Your task to perform on an android device: turn on translation in the chrome app Image 0: 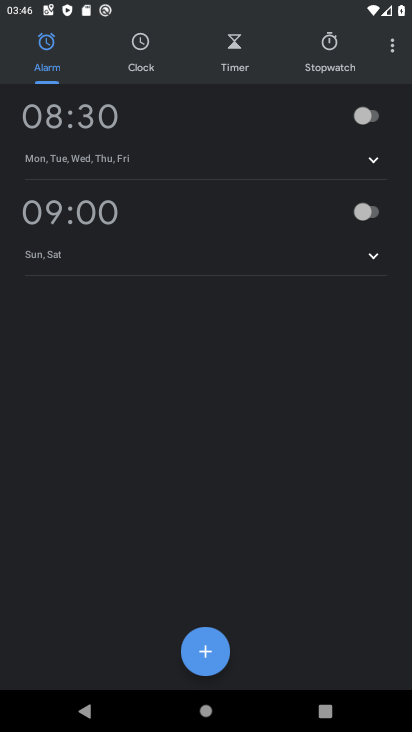
Step 0: press home button
Your task to perform on an android device: turn on translation in the chrome app Image 1: 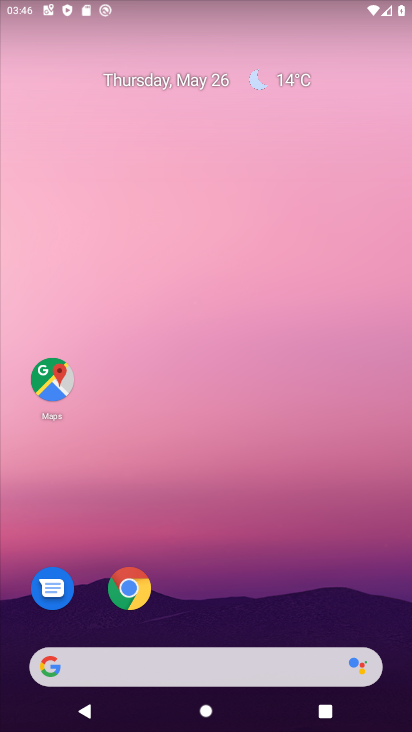
Step 1: drag from (320, 566) to (335, 227)
Your task to perform on an android device: turn on translation in the chrome app Image 2: 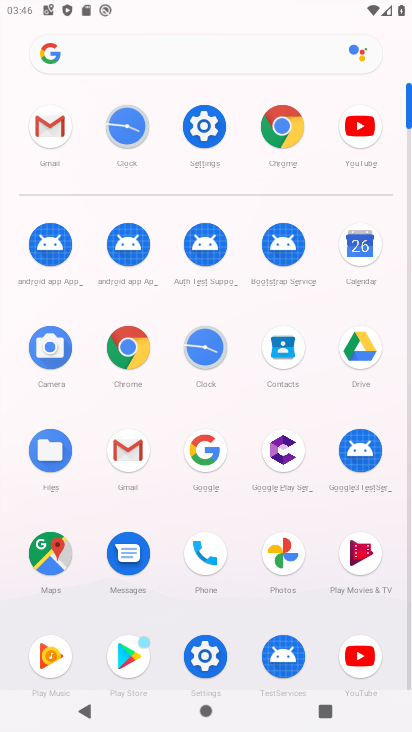
Step 2: click (284, 145)
Your task to perform on an android device: turn on translation in the chrome app Image 3: 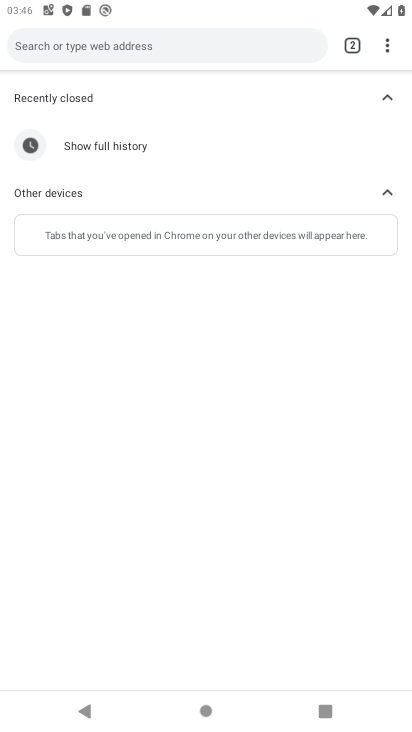
Step 3: click (380, 39)
Your task to perform on an android device: turn on translation in the chrome app Image 4: 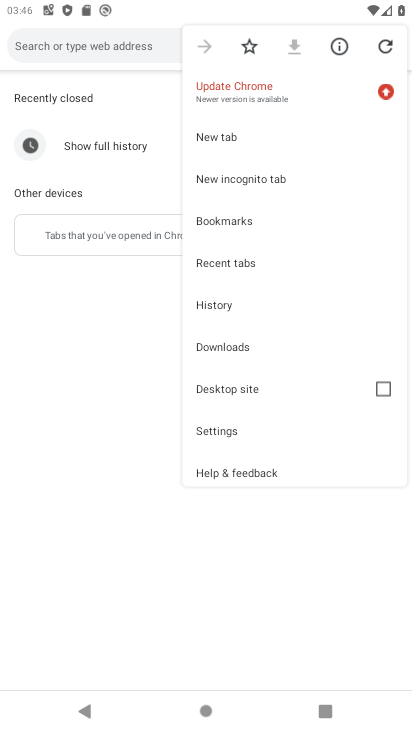
Step 4: click (251, 428)
Your task to perform on an android device: turn on translation in the chrome app Image 5: 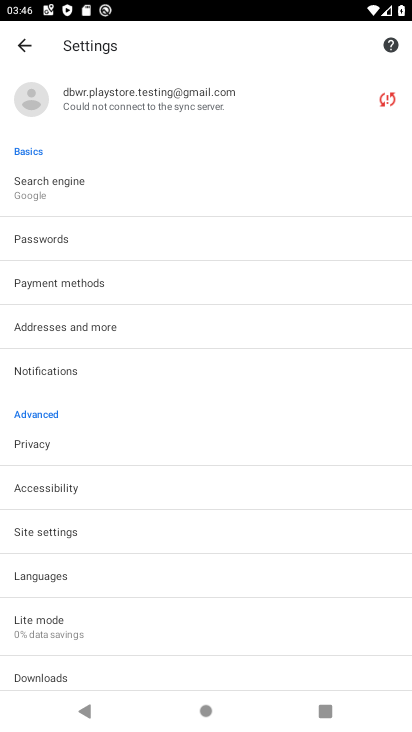
Step 5: click (144, 578)
Your task to perform on an android device: turn on translation in the chrome app Image 6: 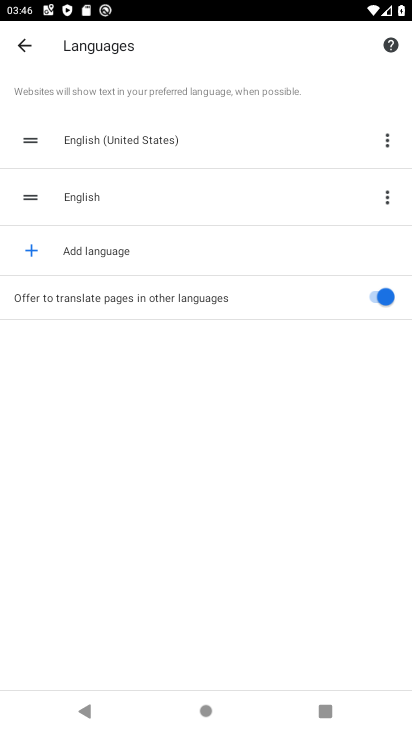
Step 6: task complete